Your task to perform on an android device: open app "Walmart Shopping & Grocery" Image 0: 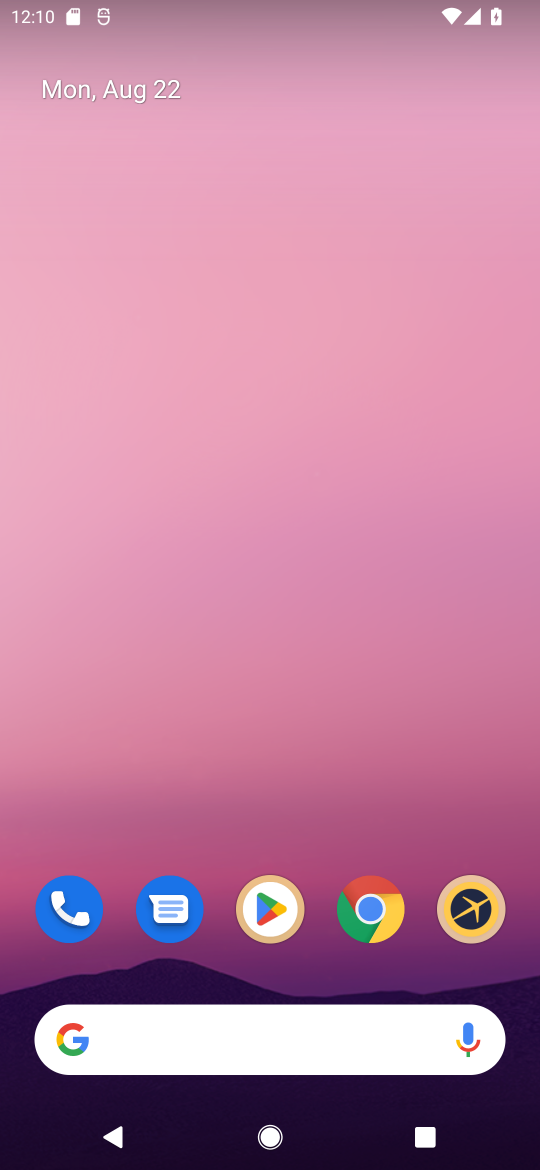
Step 0: click (282, 914)
Your task to perform on an android device: open app "Walmart Shopping & Grocery" Image 1: 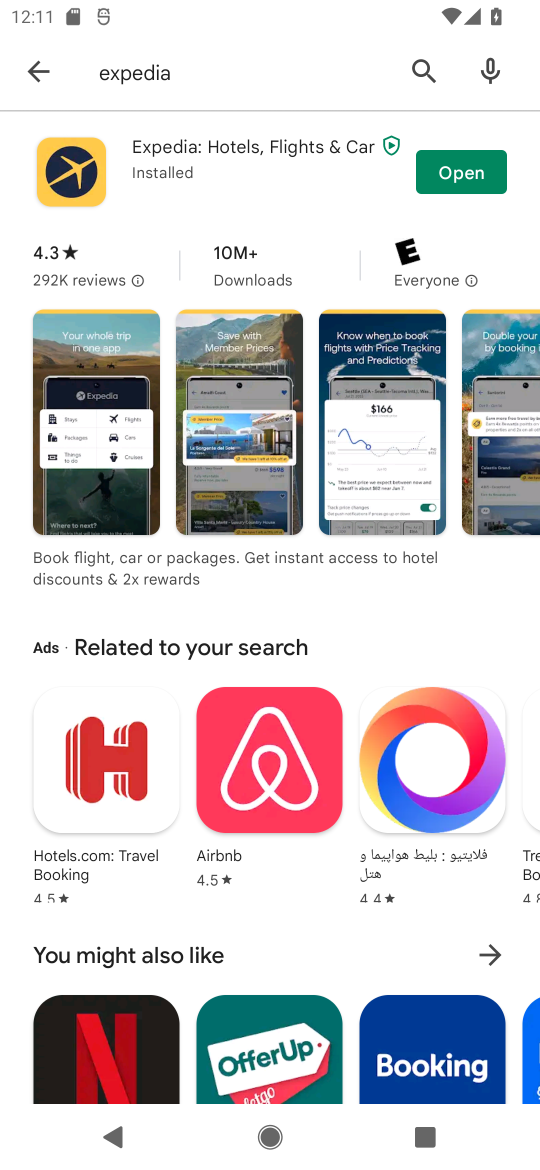
Step 1: click (414, 85)
Your task to perform on an android device: open app "Walmart Shopping & Grocery" Image 2: 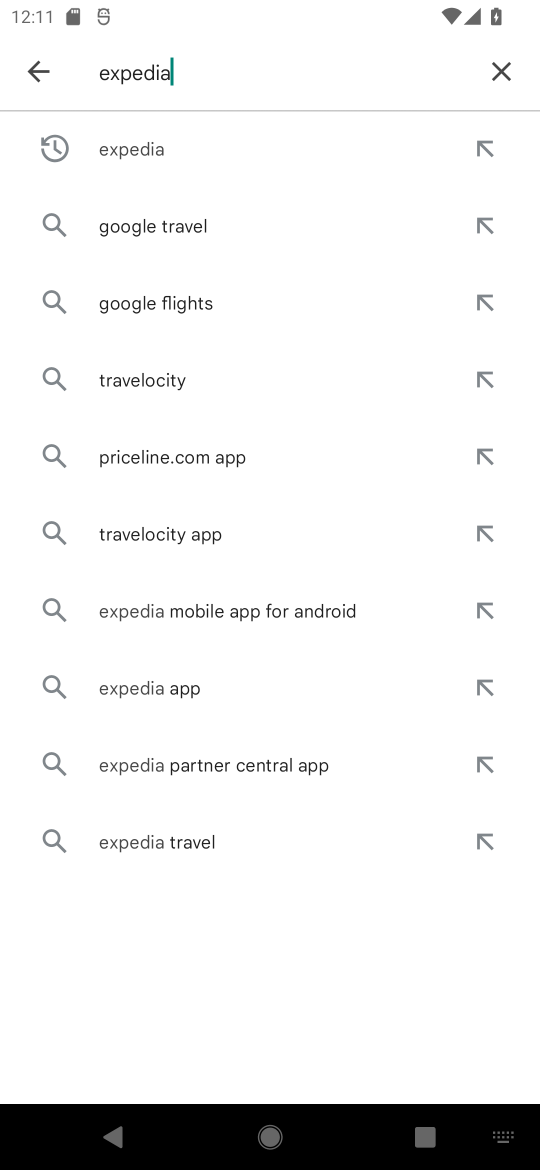
Step 2: click (502, 78)
Your task to perform on an android device: open app "Walmart Shopping & Grocery" Image 3: 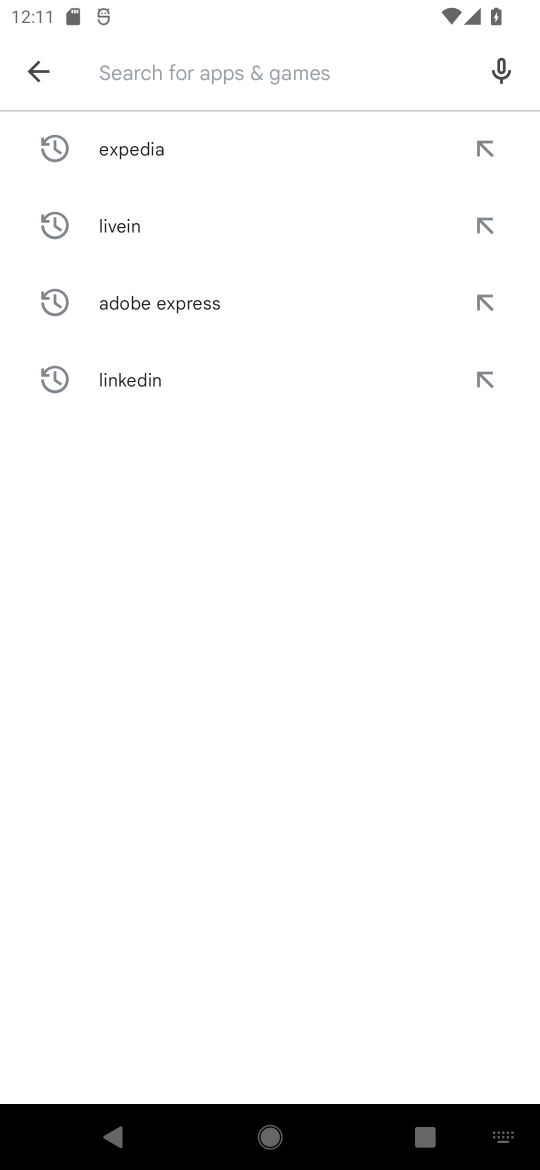
Step 3: click (193, 85)
Your task to perform on an android device: open app "Walmart Shopping & Grocery" Image 4: 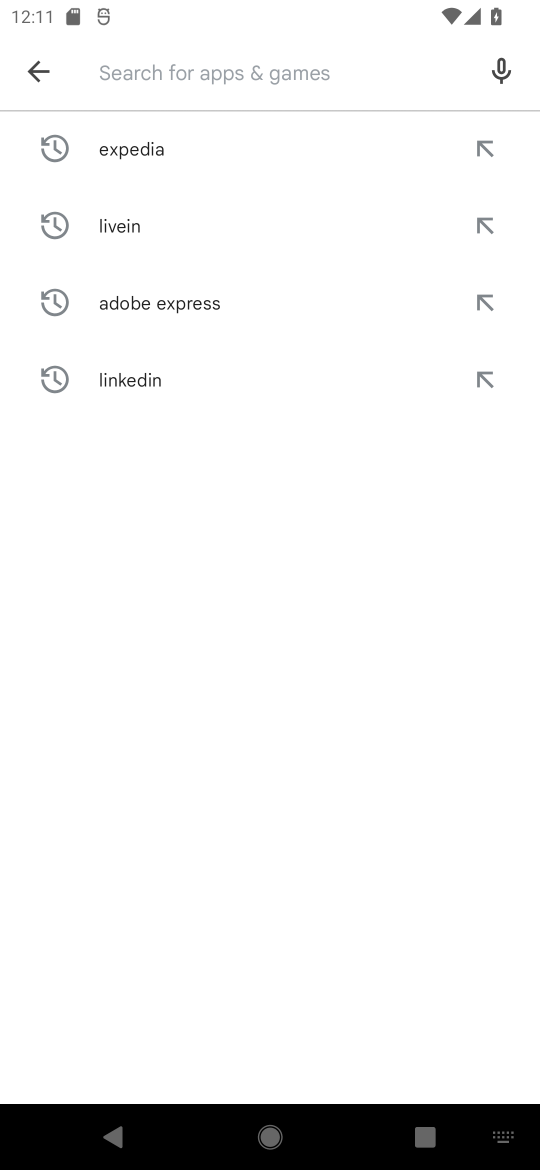
Step 4: type "walmart"
Your task to perform on an android device: open app "Walmart Shopping & Grocery" Image 5: 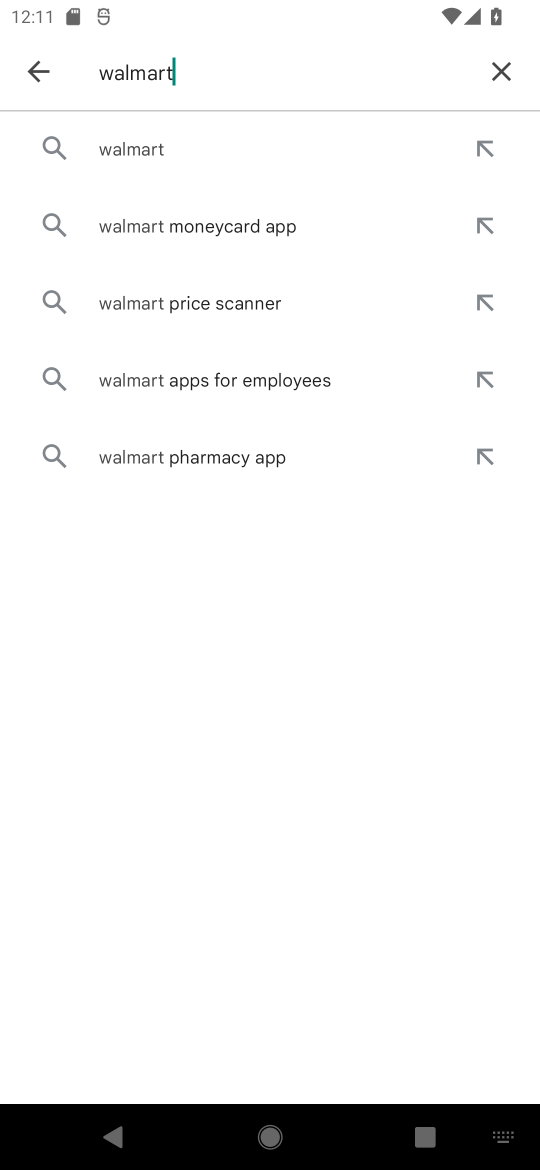
Step 5: click (204, 136)
Your task to perform on an android device: open app "Walmart Shopping & Grocery" Image 6: 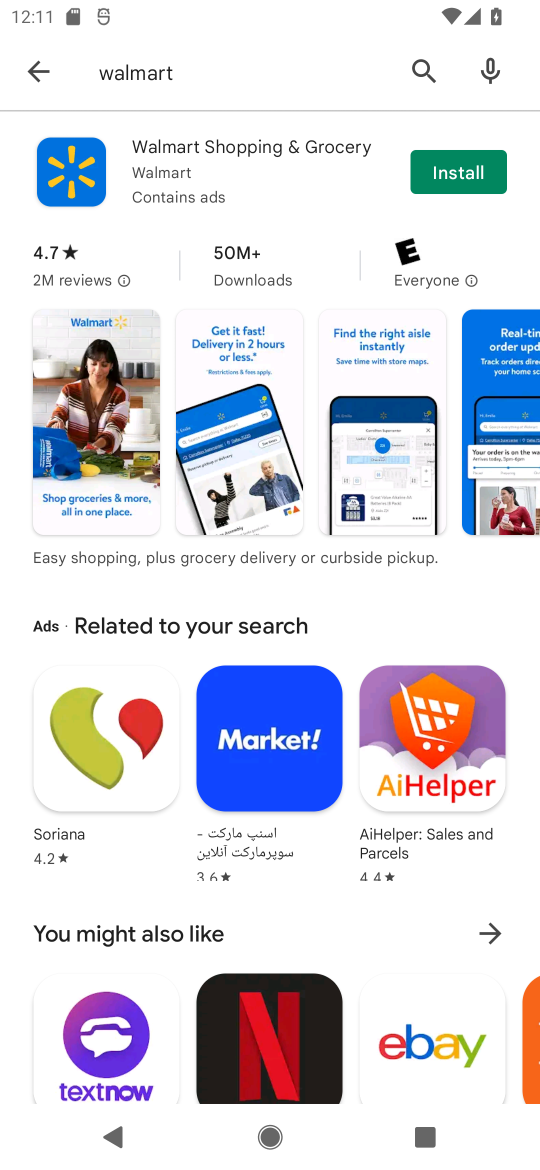
Step 6: task complete